Your task to perform on an android device: toggle notifications settings in the gmail app Image 0: 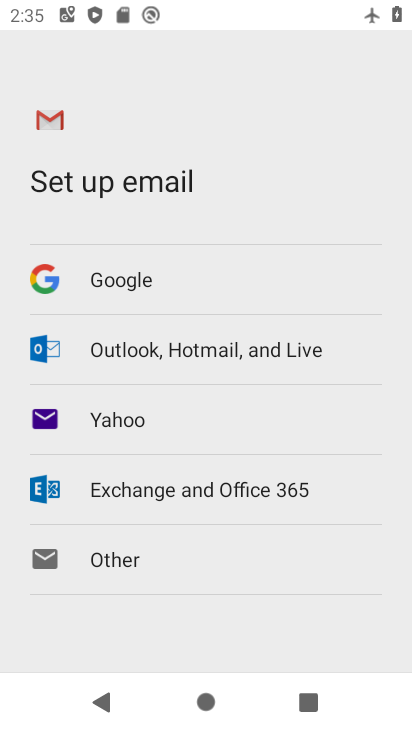
Step 0: press back button
Your task to perform on an android device: toggle notifications settings in the gmail app Image 1: 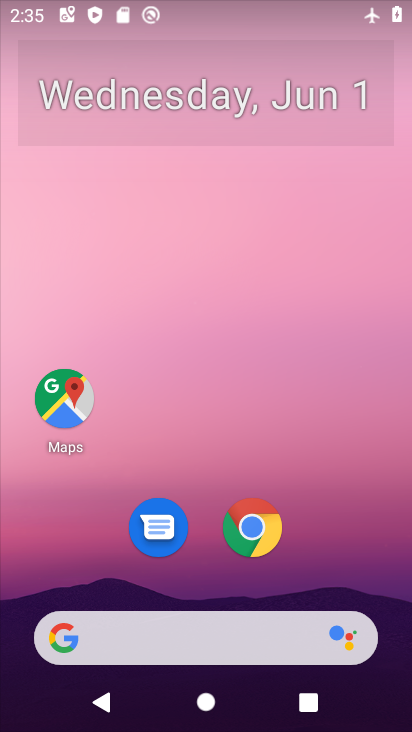
Step 1: drag from (322, 582) to (260, 205)
Your task to perform on an android device: toggle notifications settings in the gmail app Image 2: 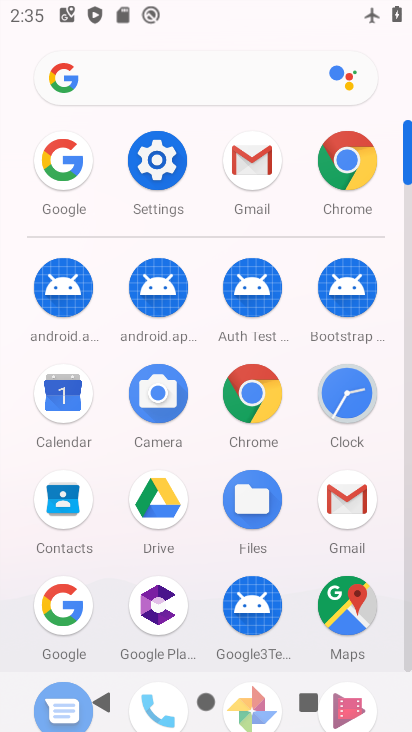
Step 2: click (249, 159)
Your task to perform on an android device: toggle notifications settings in the gmail app Image 3: 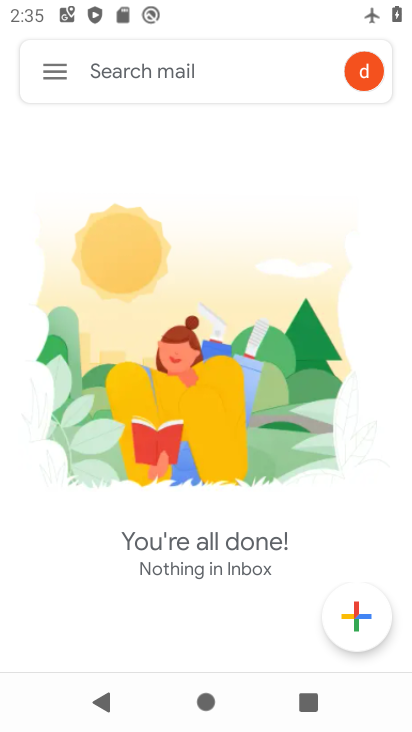
Step 3: click (54, 70)
Your task to perform on an android device: toggle notifications settings in the gmail app Image 4: 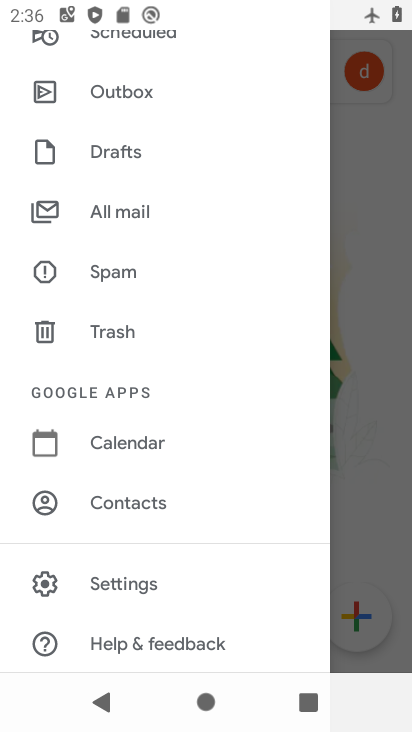
Step 4: click (134, 579)
Your task to perform on an android device: toggle notifications settings in the gmail app Image 5: 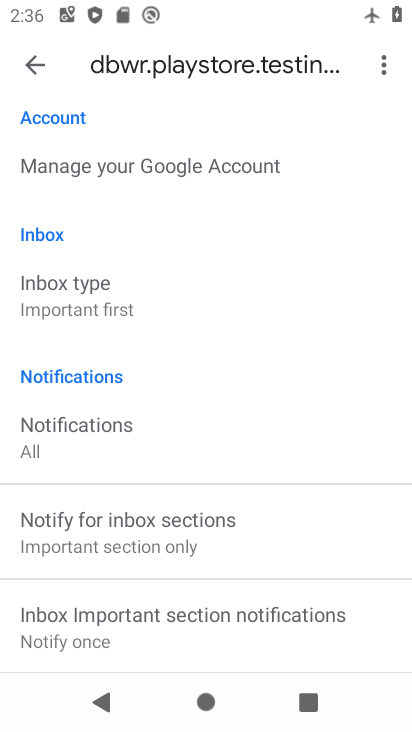
Step 5: drag from (120, 437) to (146, 375)
Your task to perform on an android device: toggle notifications settings in the gmail app Image 6: 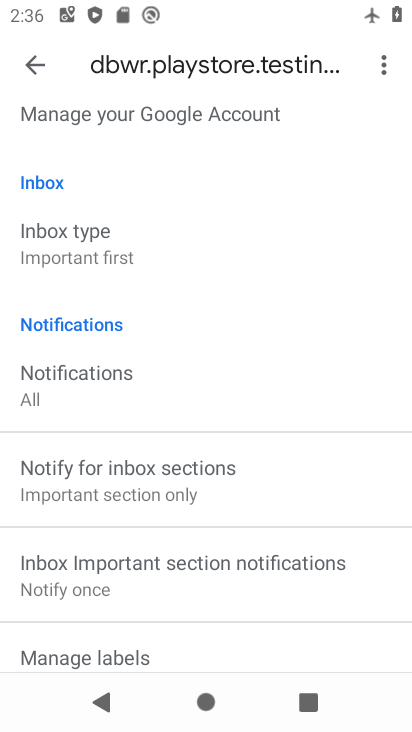
Step 6: drag from (109, 544) to (144, 418)
Your task to perform on an android device: toggle notifications settings in the gmail app Image 7: 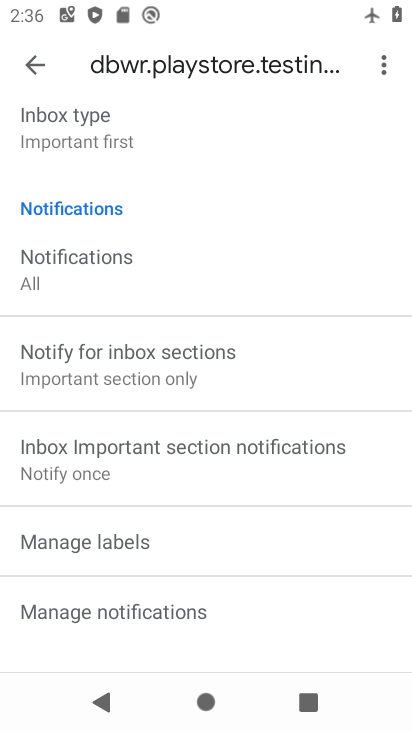
Step 7: drag from (99, 556) to (88, 406)
Your task to perform on an android device: toggle notifications settings in the gmail app Image 8: 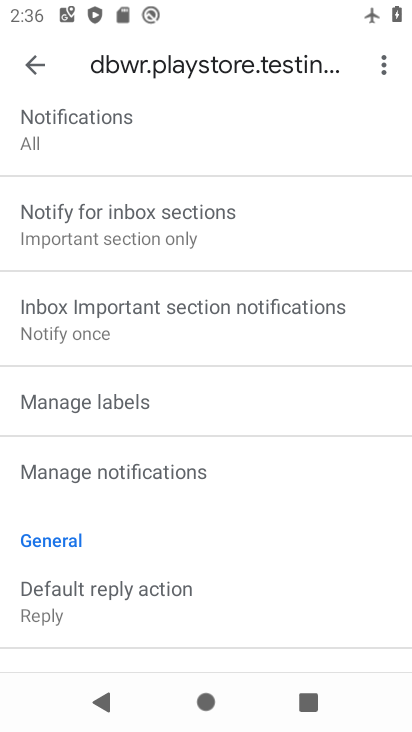
Step 8: click (110, 465)
Your task to perform on an android device: toggle notifications settings in the gmail app Image 9: 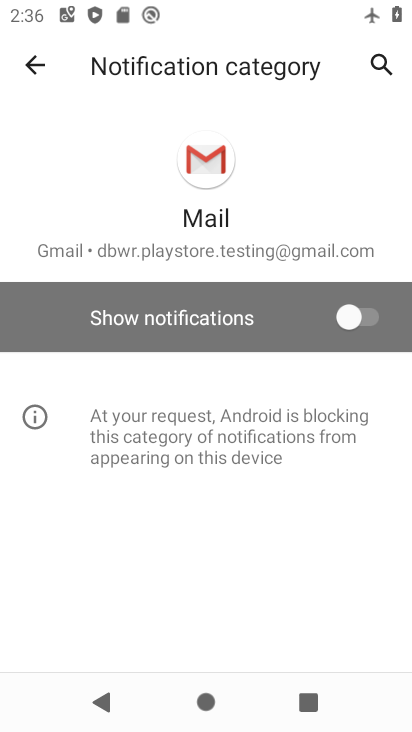
Step 9: click (340, 317)
Your task to perform on an android device: toggle notifications settings in the gmail app Image 10: 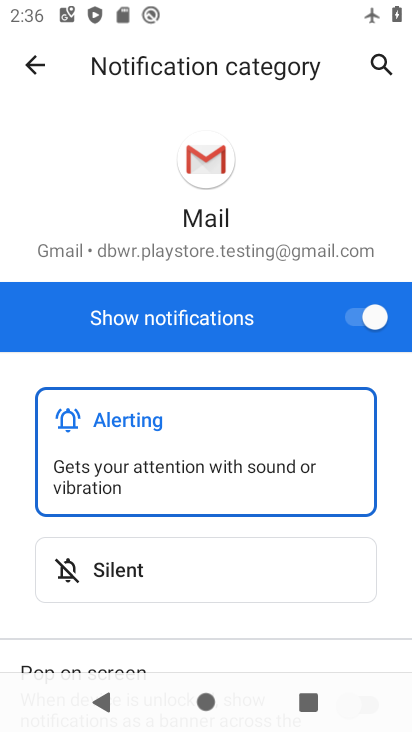
Step 10: task complete